Your task to perform on an android device: find which apps use the phone's location Image 0: 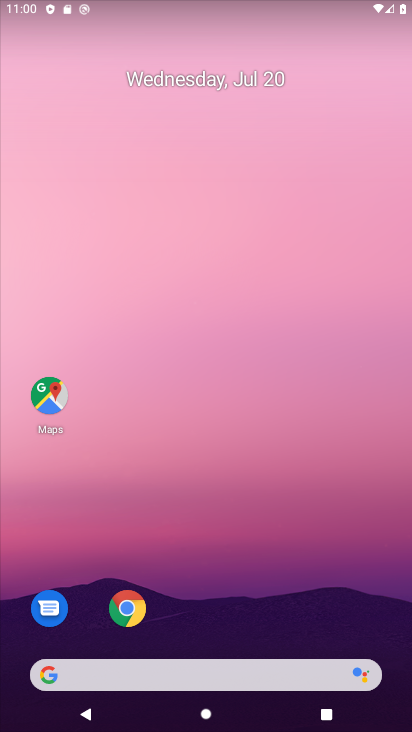
Step 0: drag from (361, 591) to (327, 135)
Your task to perform on an android device: find which apps use the phone's location Image 1: 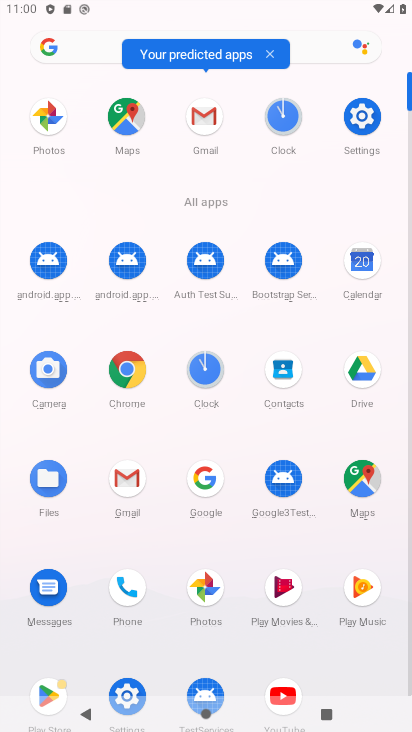
Step 1: click (362, 130)
Your task to perform on an android device: find which apps use the phone's location Image 2: 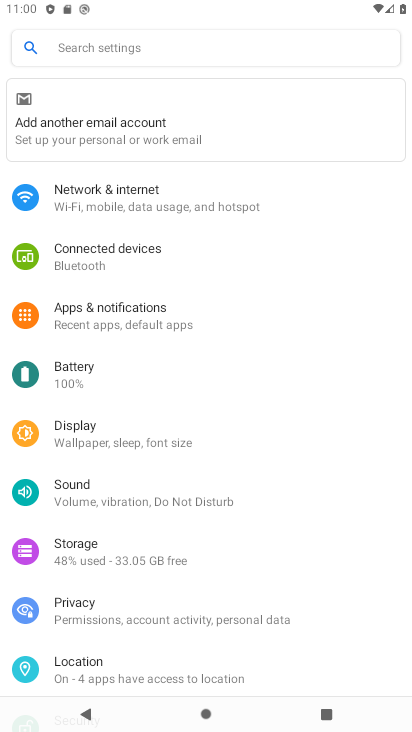
Step 2: drag from (333, 523) to (331, 412)
Your task to perform on an android device: find which apps use the phone's location Image 3: 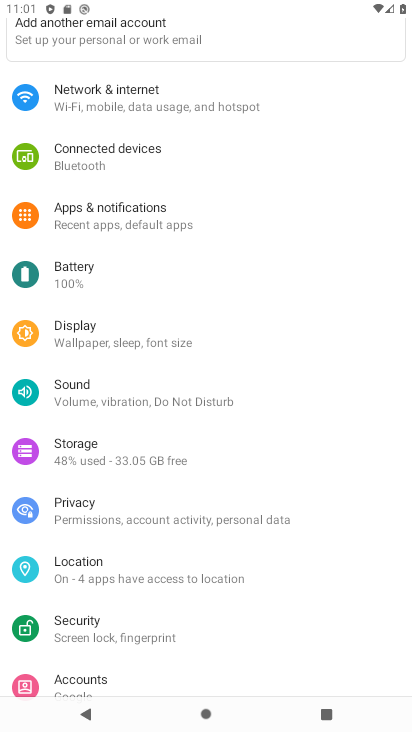
Step 3: drag from (346, 588) to (350, 415)
Your task to perform on an android device: find which apps use the phone's location Image 4: 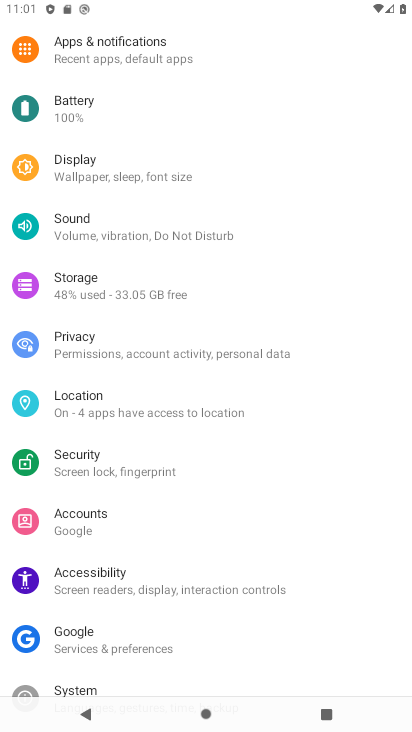
Step 4: click (179, 416)
Your task to perform on an android device: find which apps use the phone's location Image 5: 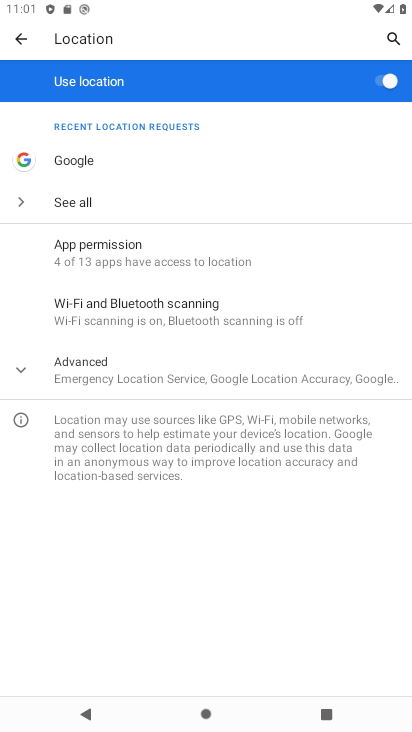
Step 5: click (210, 246)
Your task to perform on an android device: find which apps use the phone's location Image 6: 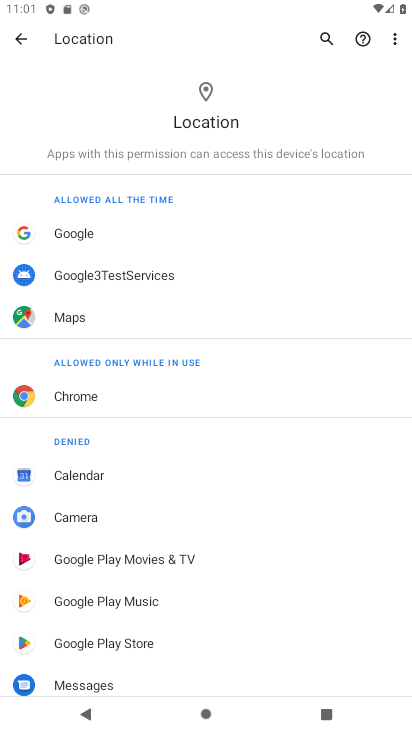
Step 6: drag from (301, 523) to (294, 411)
Your task to perform on an android device: find which apps use the phone's location Image 7: 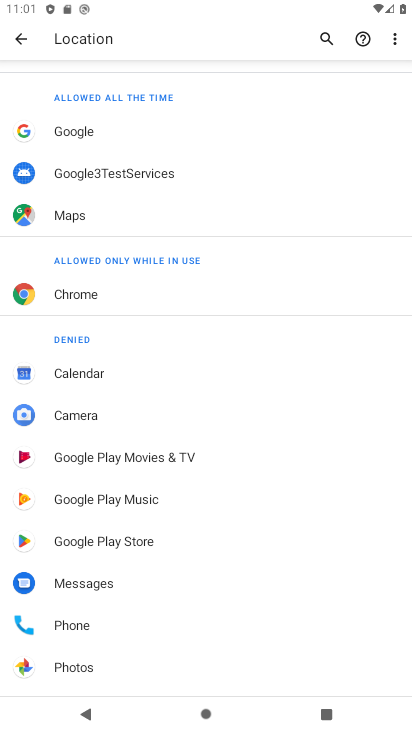
Step 7: drag from (300, 533) to (297, 360)
Your task to perform on an android device: find which apps use the phone's location Image 8: 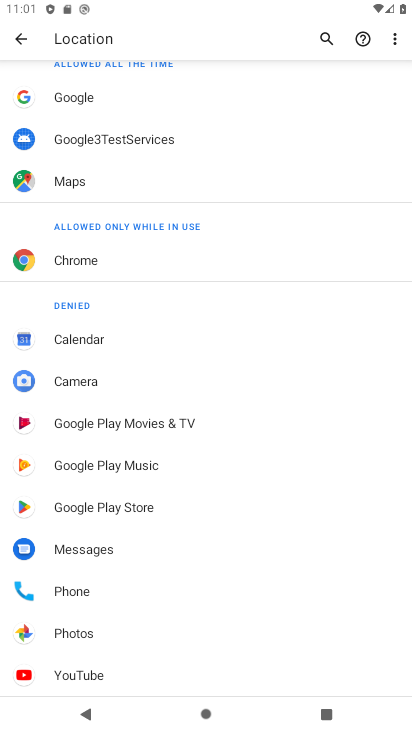
Step 8: click (147, 639)
Your task to perform on an android device: find which apps use the phone's location Image 9: 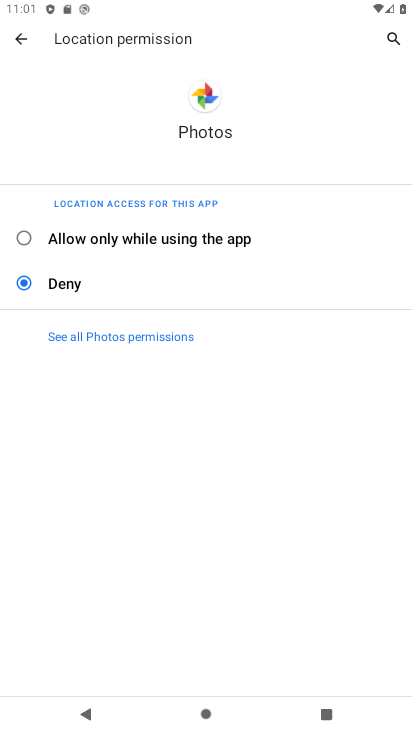
Step 9: click (205, 241)
Your task to perform on an android device: find which apps use the phone's location Image 10: 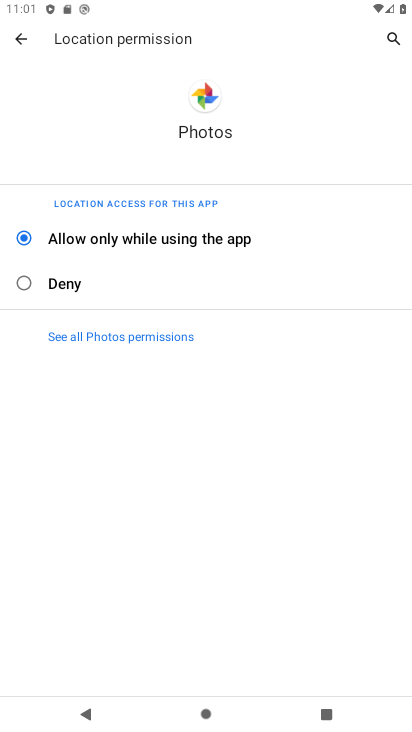
Step 10: task complete